Your task to perform on an android device: add a label to a message in the gmail app Image 0: 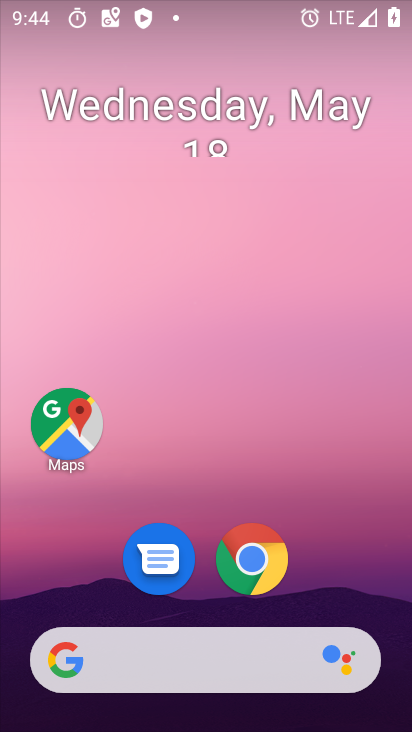
Step 0: drag from (329, 585) to (246, 28)
Your task to perform on an android device: add a label to a message in the gmail app Image 1: 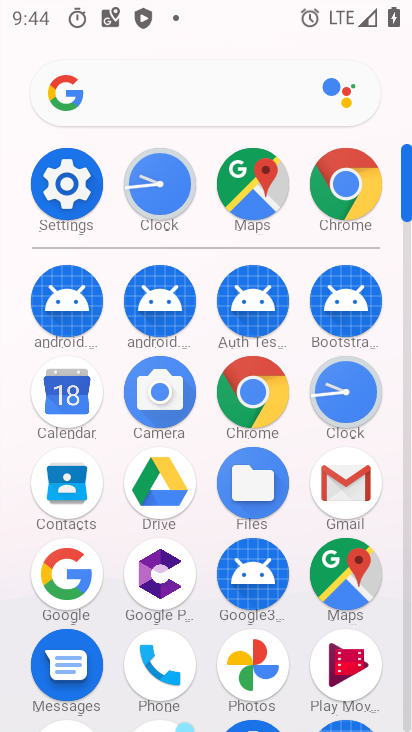
Step 1: drag from (6, 565) to (16, 269)
Your task to perform on an android device: add a label to a message in the gmail app Image 2: 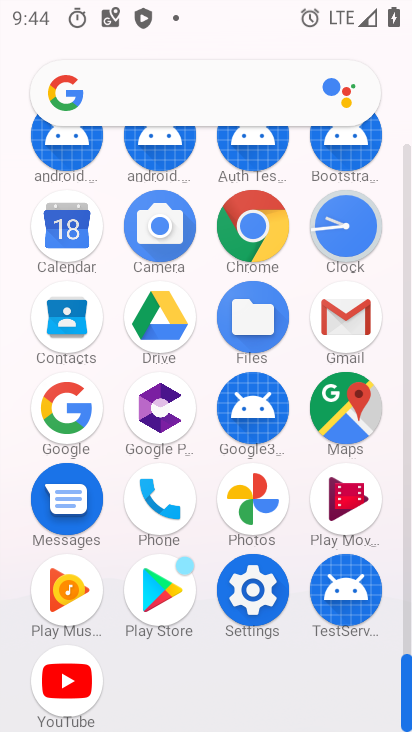
Step 2: click (341, 315)
Your task to perform on an android device: add a label to a message in the gmail app Image 3: 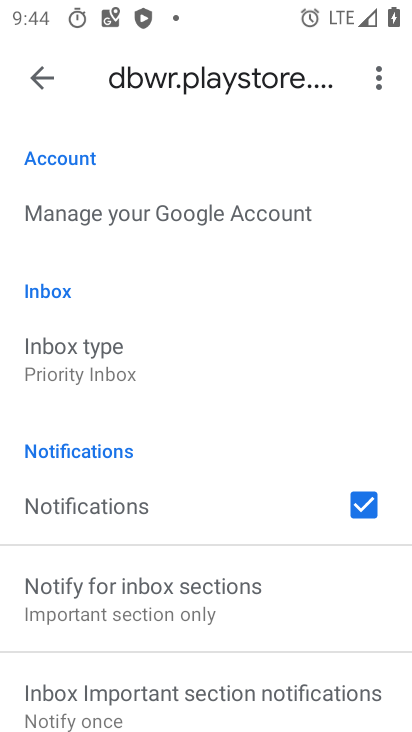
Step 3: click (43, 74)
Your task to perform on an android device: add a label to a message in the gmail app Image 4: 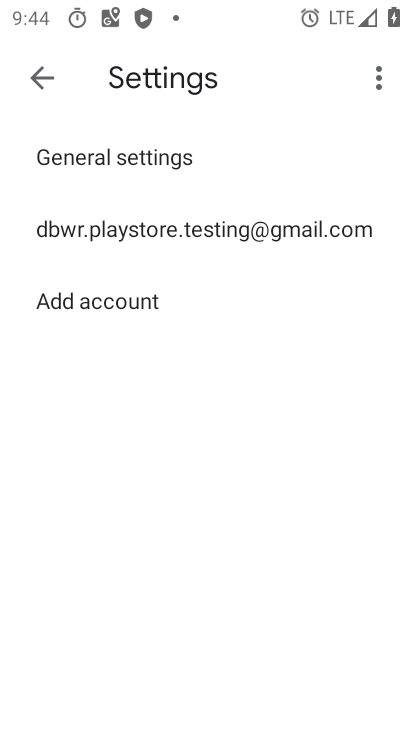
Step 4: click (31, 83)
Your task to perform on an android device: add a label to a message in the gmail app Image 5: 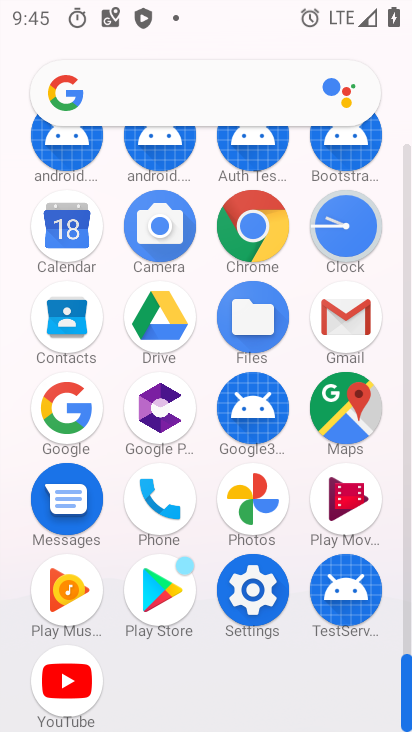
Step 5: click (342, 311)
Your task to perform on an android device: add a label to a message in the gmail app Image 6: 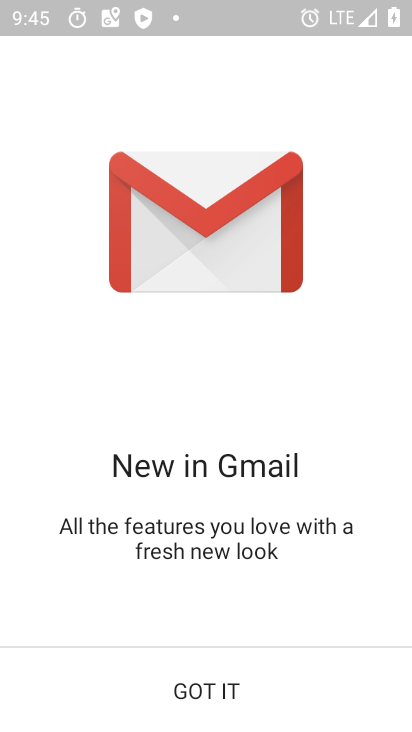
Step 6: click (232, 695)
Your task to perform on an android device: add a label to a message in the gmail app Image 7: 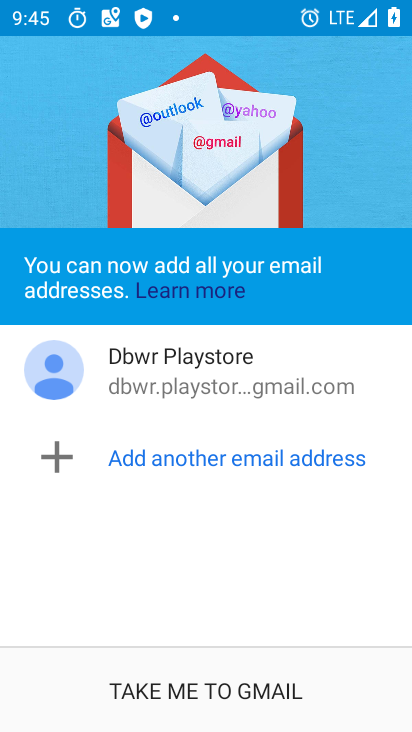
Step 7: click (218, 675)
Your task to perform on an android device: add a label to a message in the gmail app Image 8: 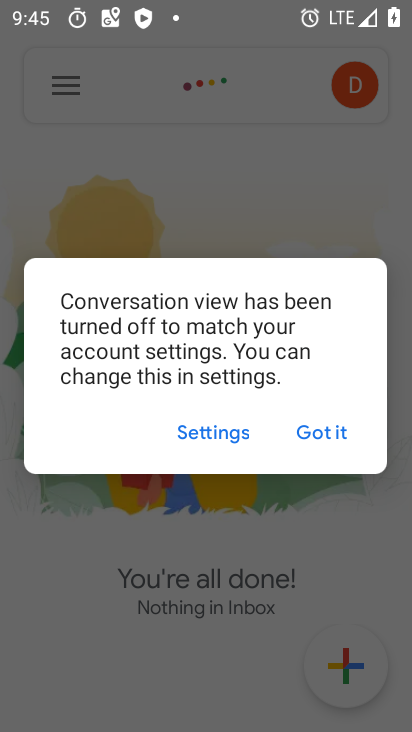
Step 8: click (312, 426)
Your task to perform on an android device: add a label to a message in the gmail app Image 9: 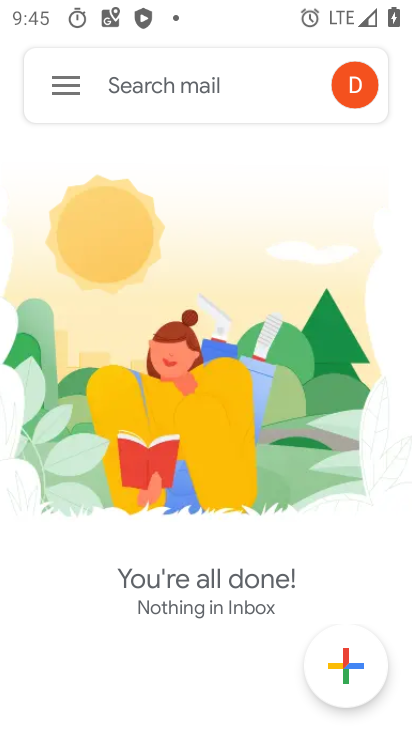
Step 9: click (58, 77)
Your task to perform on an android device: add a label to a message in the gmail app Image 10: 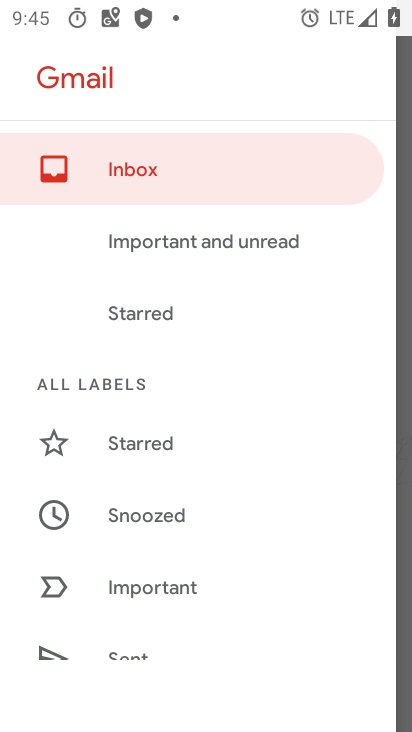
Step 10: drag from (174, 633) to (236, 227)
Your task to perform on an android device: add a label to a message in the gmail app Image 11: 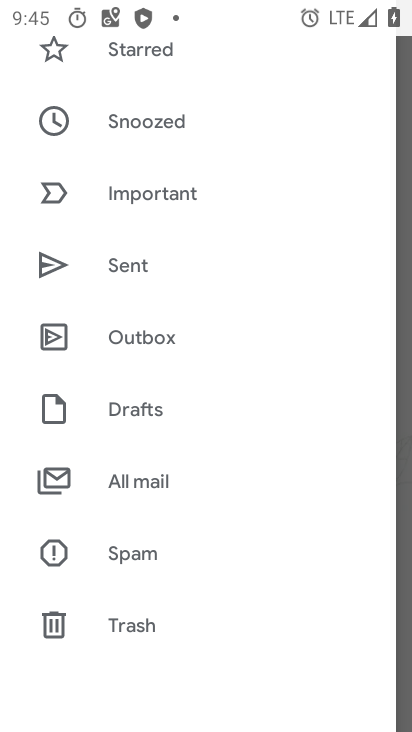
Step 11: click (150, 480)
Your task to perform on an android device: add a label to a message in the gmail app Image 12: 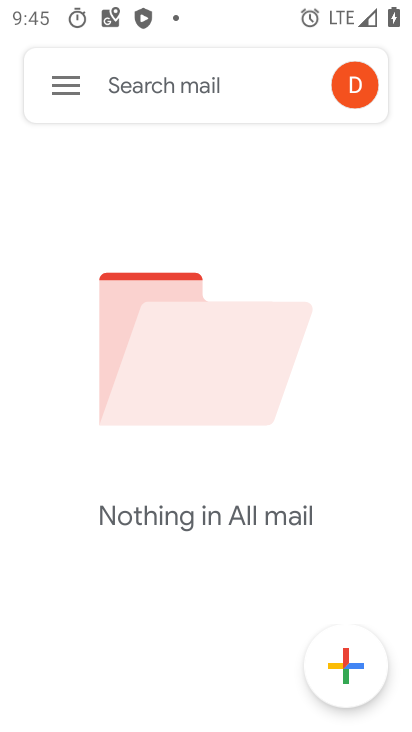
Step 12: click (57, 81)
Your task to perform on an android device: add a label to a message in the gmail app Image 13: 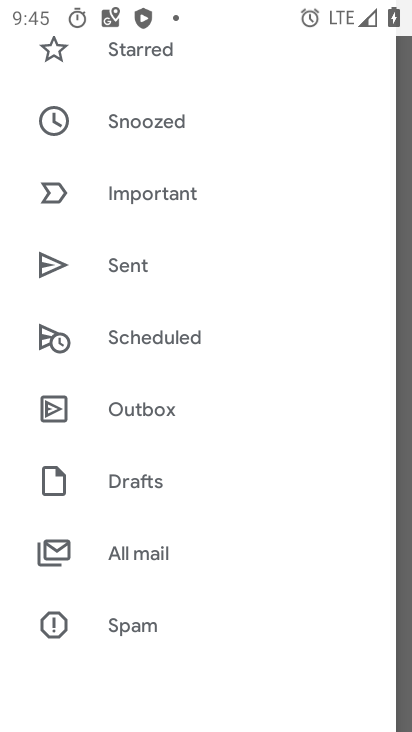
Step 13: click (151, 563)
Your task to perform on an android device: add a label to a message in the gmail app Image 14: 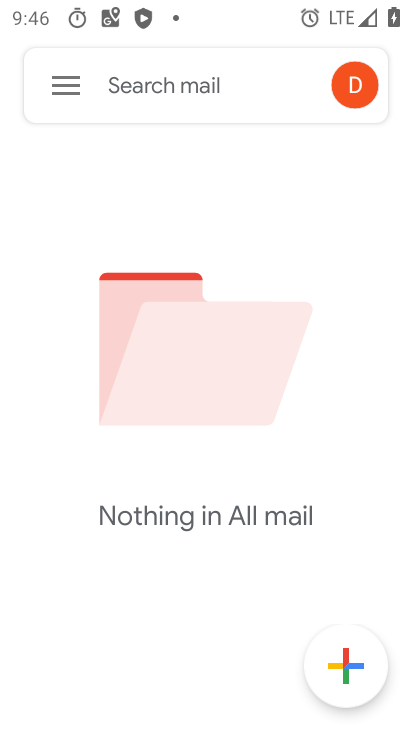
Step 14: click (59, 87)
Your task to perform on an android device: add a label to a message in the gmail app Image 15: 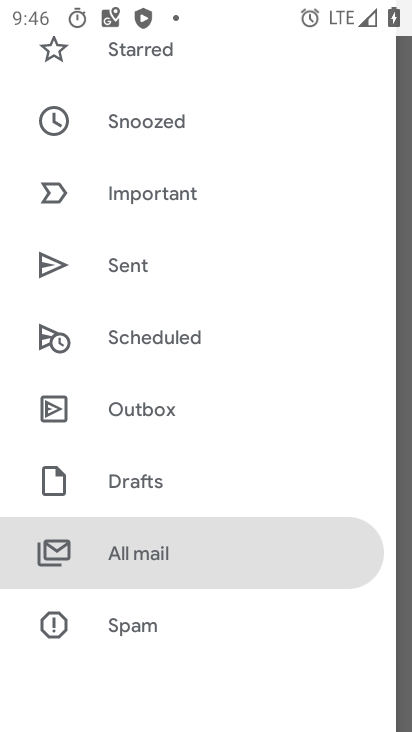
Step 15: drag from (206, 219) to (201, 470)
Your task to perform on an android device: add a label to a message in the gmail app Image 16: 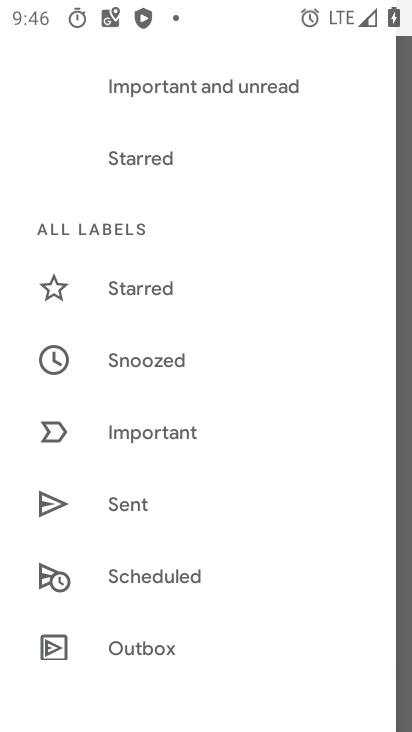
Step 16: drag from (224, 109) to (235, 582)
Your task to perform on an android device: add a label to a message in the gmail app Image 17: 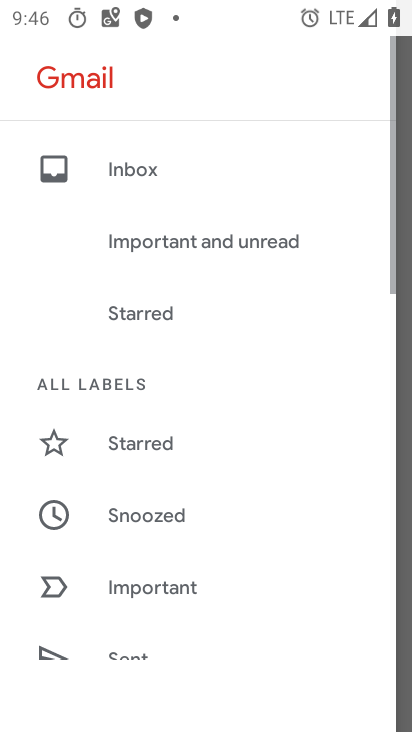
Step 17: click (179, 175)
Your task to perform on an android device: add a label to a message in the gmail app Image 18: 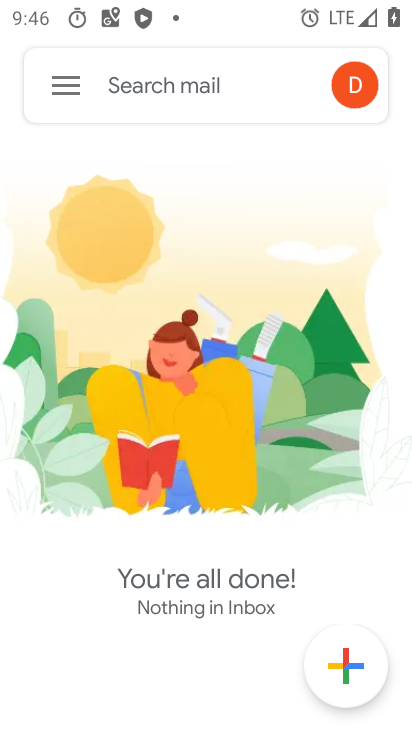
Step 18: task complete